Your task to perform on an android device: toggle translation in the chrome app Image 0: 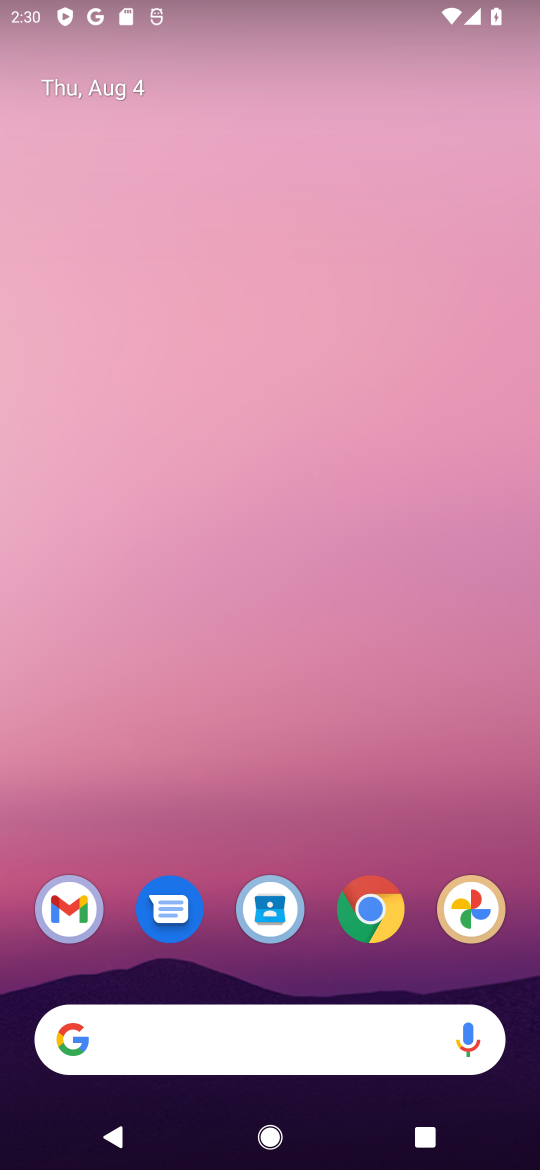
Step 0: click (374, 904)
Your task to perform on an android device: toggle translation in the chrome app Image 1: 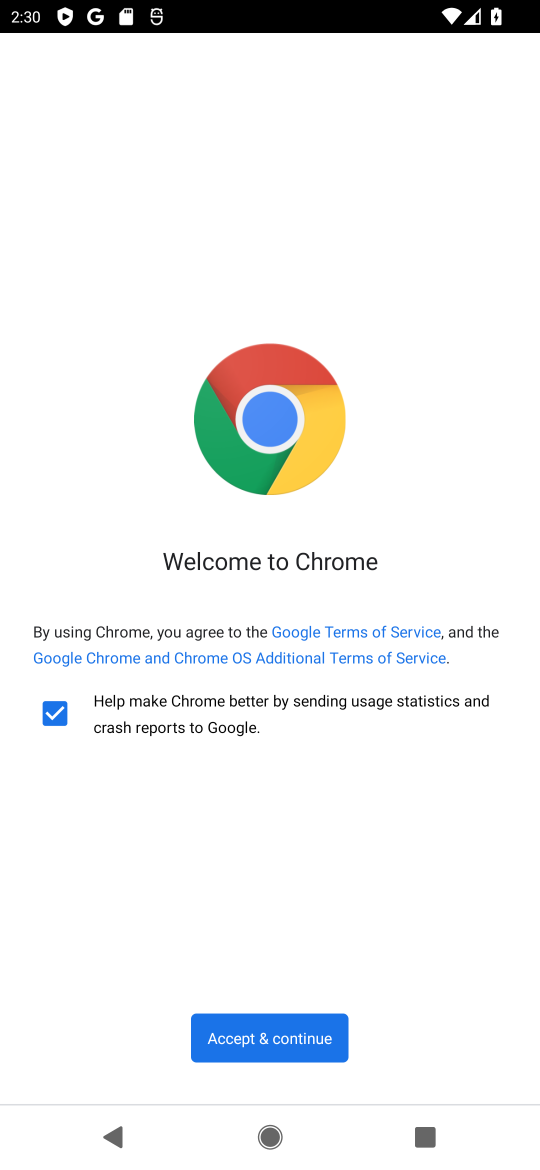
Step 1: click (276, 1040)
Your task to perform on an android device: toggle translation in the chrome app Image 2: 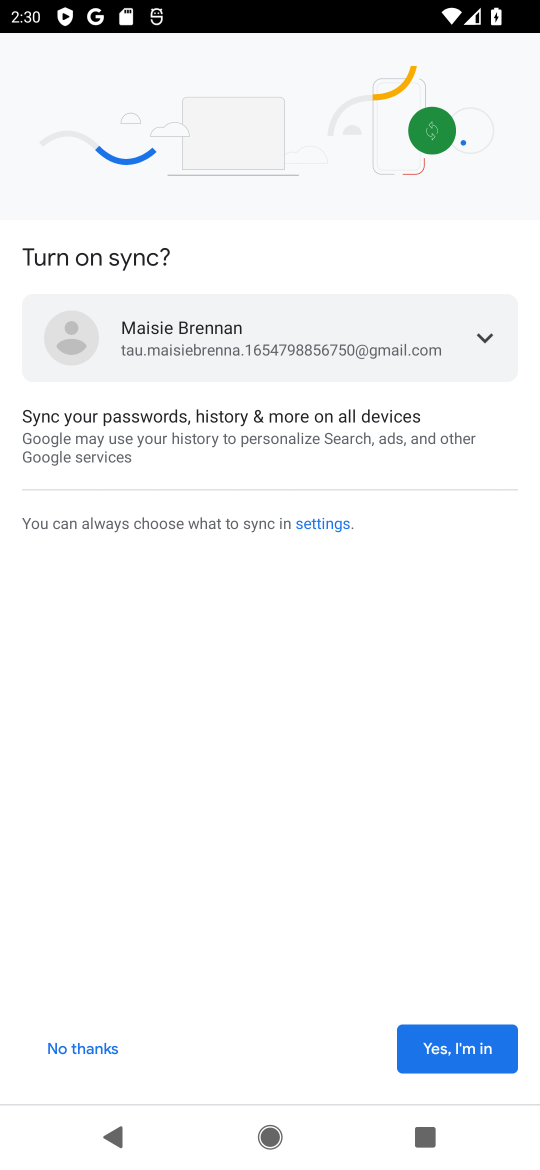
Step 2: click (443, 1048)
Your task to perform on an android device: toggle translation in the chrome app Image 3: 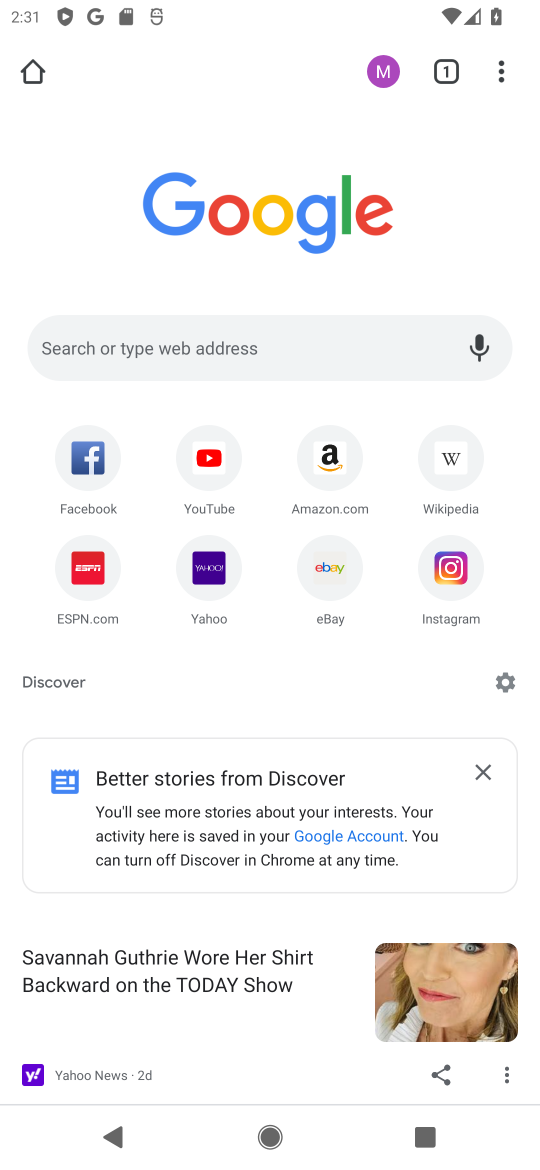
Step 3: drag from (502, 73) to (367, 653)
Your task to perform on an android device: toggle translation in the chrome app Image 4: 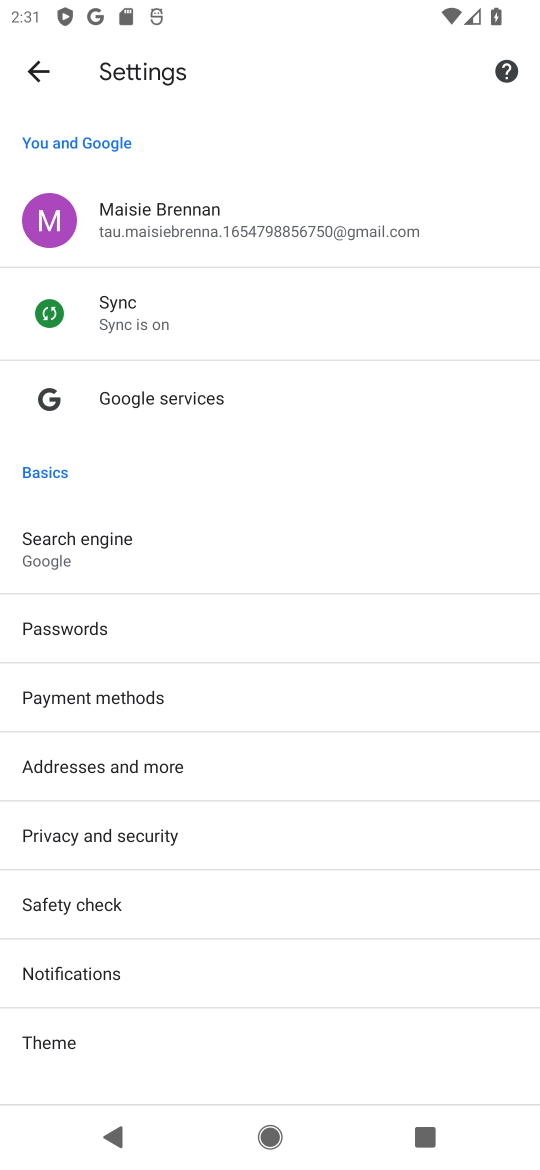
Step 4: drag from (197, 920) to (326, 438)
Your task to perform on an android device: toggle translation in the chrome app Image 5: 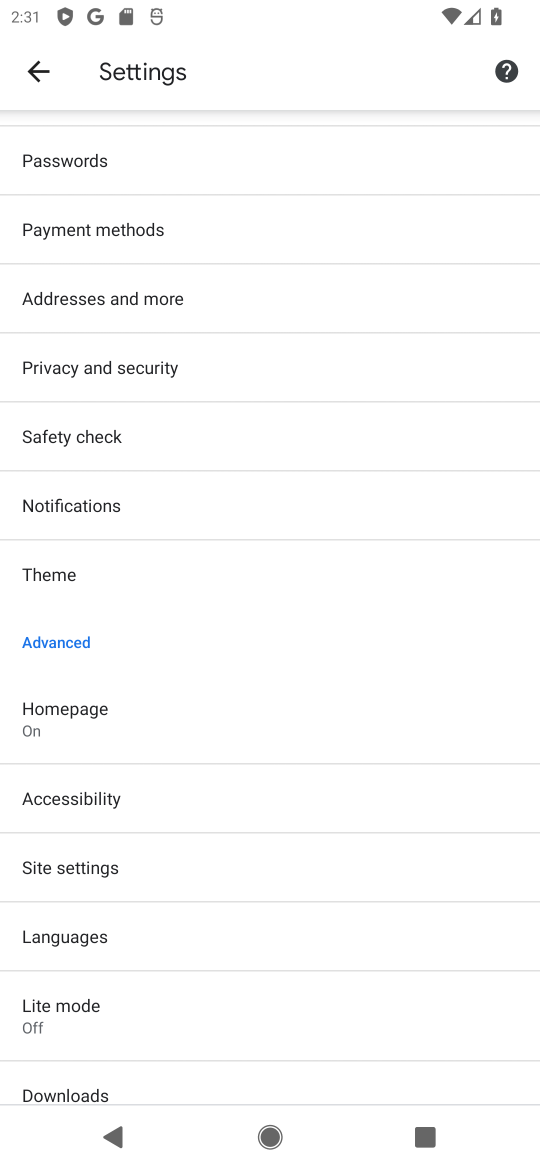
Step 5: click (102, 943)
Your task to perform on an android device: toggle translation in the chrome app Image 6: 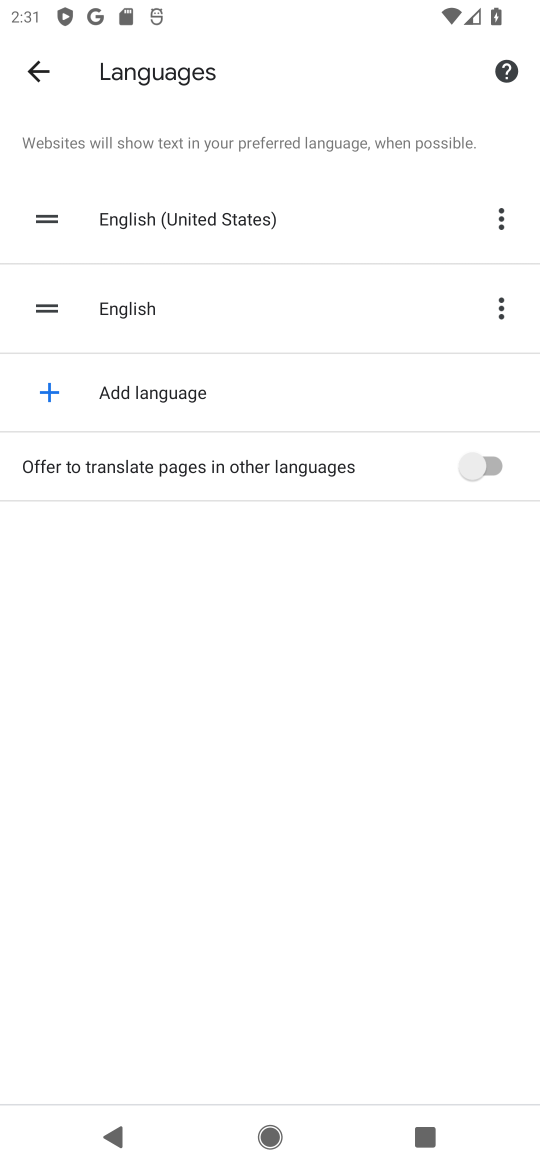
Step 6: click (494, 458)
Your task to perform on an android device: toggle translation in the chrome app Image 7: 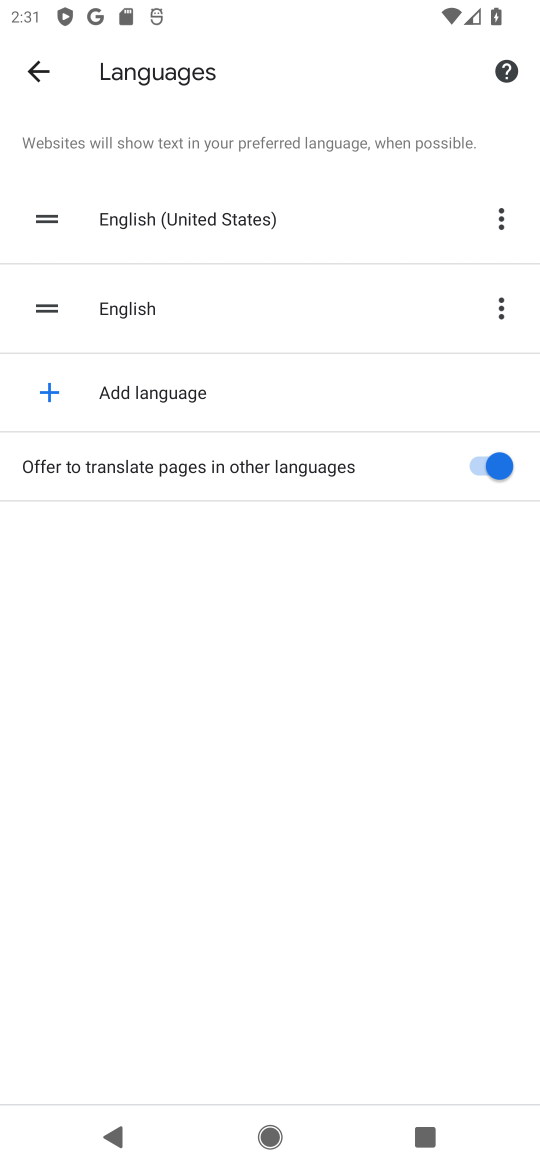
Step 7: task complete